Your task to perform on an android device: Open Google Chrome Image 0: 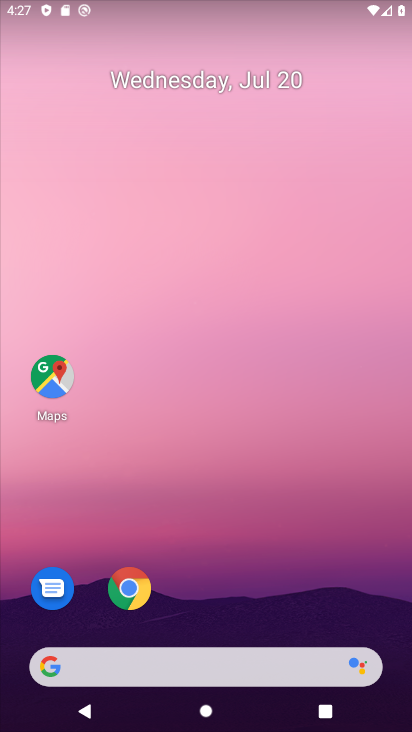
Step 0: click (144, 591)
Your task to perform on an android device: Open Google Chrome Image 1: 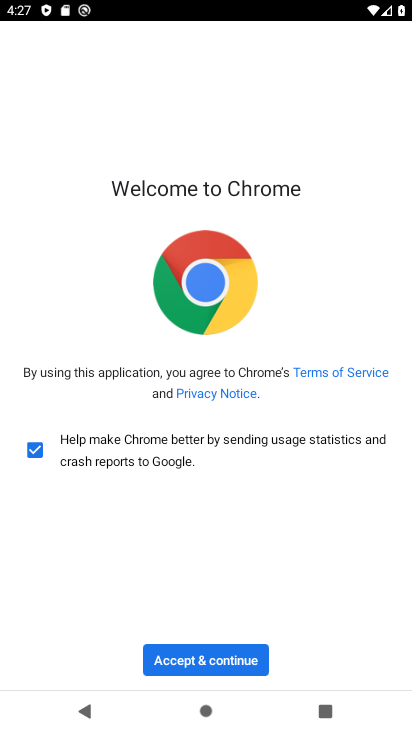
Step 1: click (250, 654)
Your task to perform on an android device: Open Google Chrome Image 2: 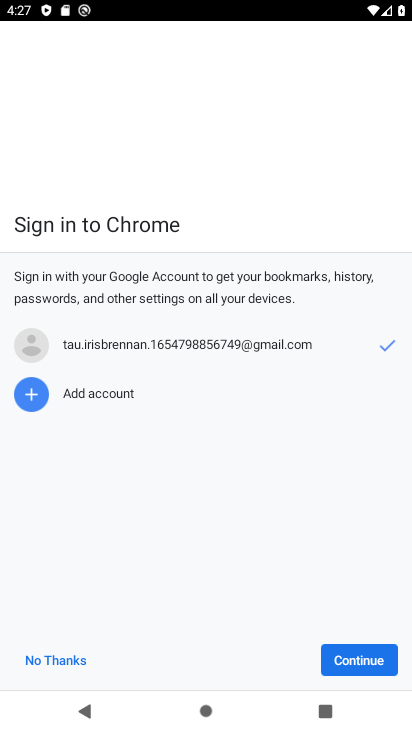
Step 2: click (367, 657)
Your task to perform on an android device: Open Google Chrome Image 3: 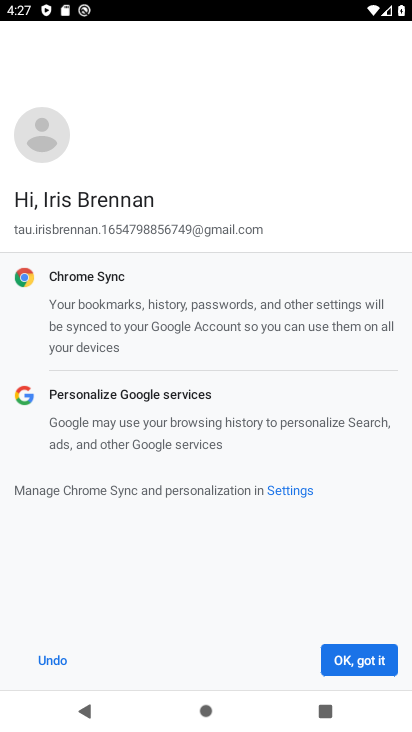
Step 3: click (371, 662)
Your task to perform on an android device: Open Google Chrome Image 4: 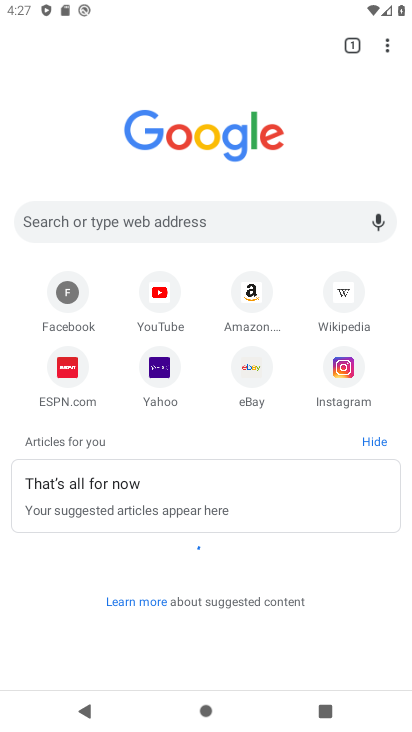
Step 4: task complete